Your task to perform on an android device: Open Yahoo.com Image 0: 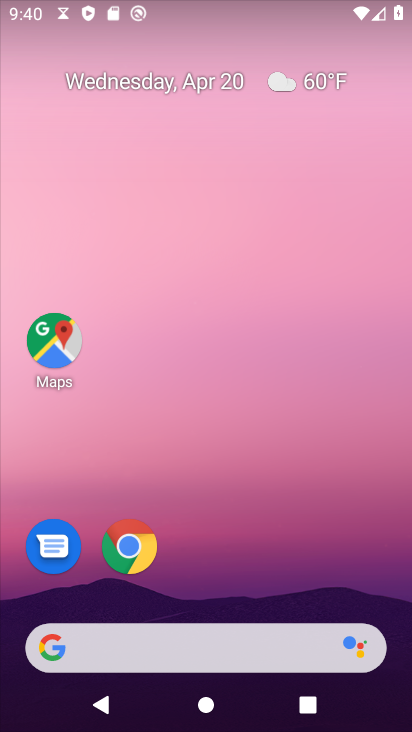
Step 0: click (133, 547)
Your task to perform on an android device: Open Yahoo.com Image 1: 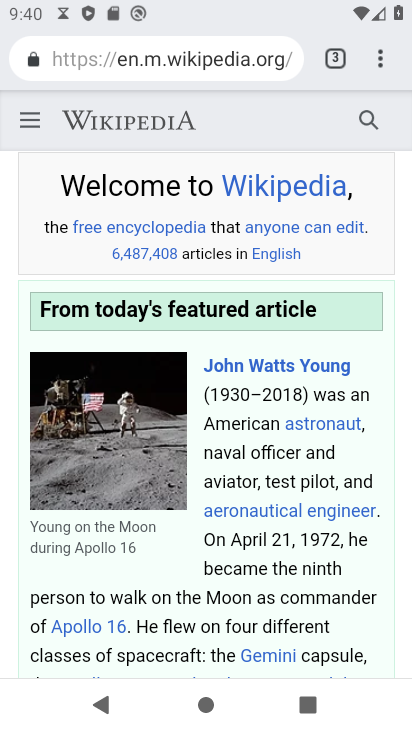
Step 1: click (332, 57)
Your task to perform on an android device: Open Yahoo.com Image 2: 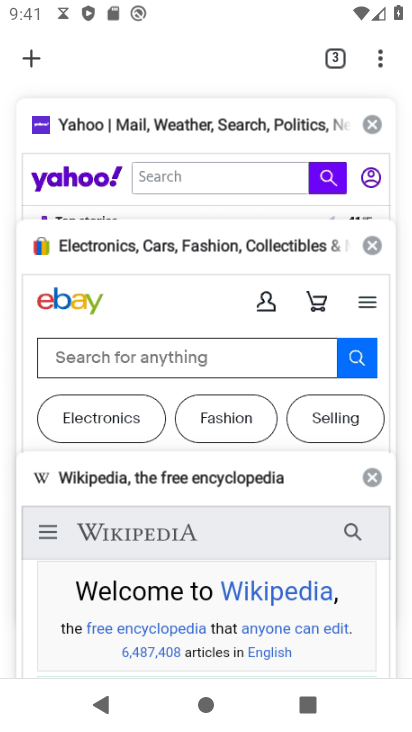
Step 2: click (170, 130)
Your task to perform on an android device: Open Yahoo.com Image 3: 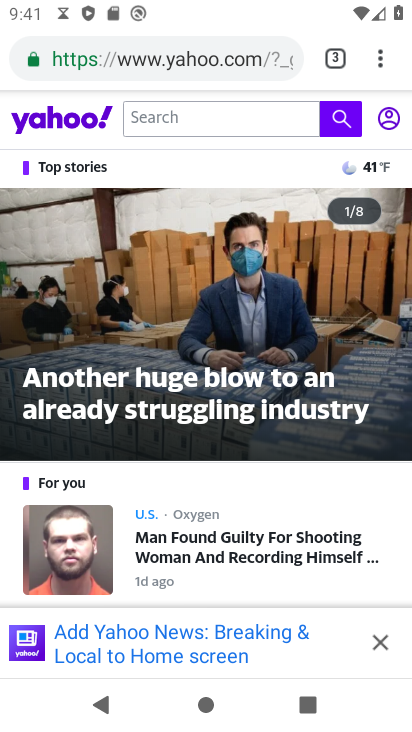
Step 3: task complete